Your task to perform on an android device: open a new tab in the chrome app Image 0: 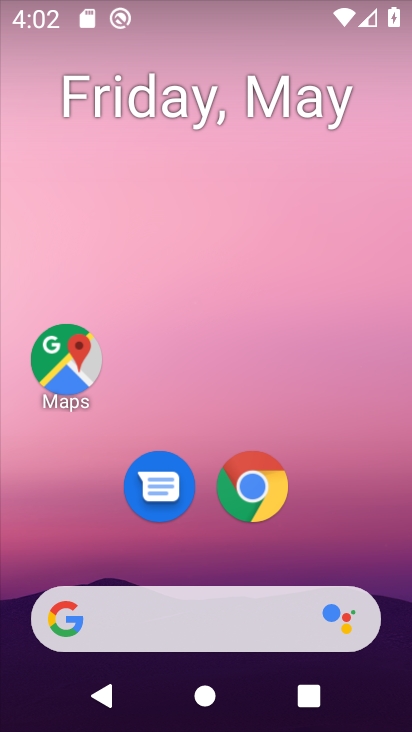
Step 0: drag from (325, 414) to (239, 23)
Your task to perform on an android device: open a new tab in the chrome app Image 1: 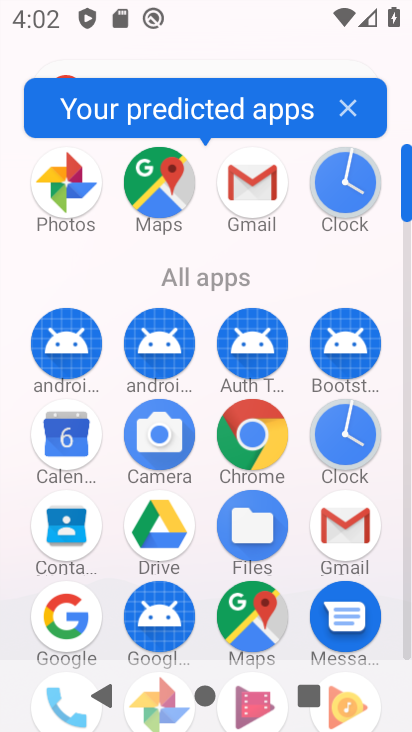
Step 1: drag from (17, 616) to (0, 274)
Your task to perform on an android device: open a new tab in the chrome app Image 2: 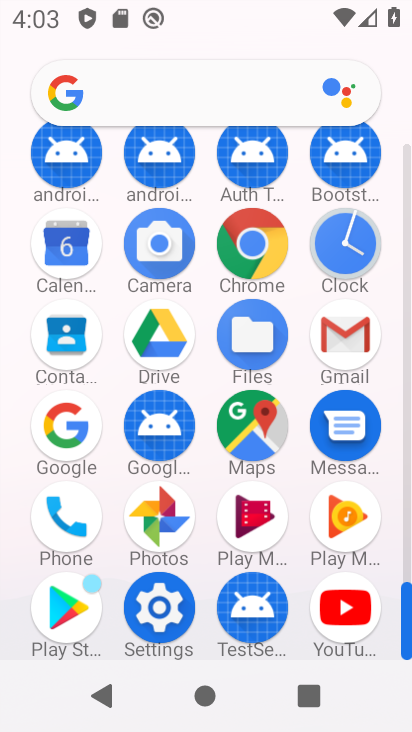
Step 2: click (248, 237)
Your task to perform on an android device: open a new tab in the chrome app Image 3: 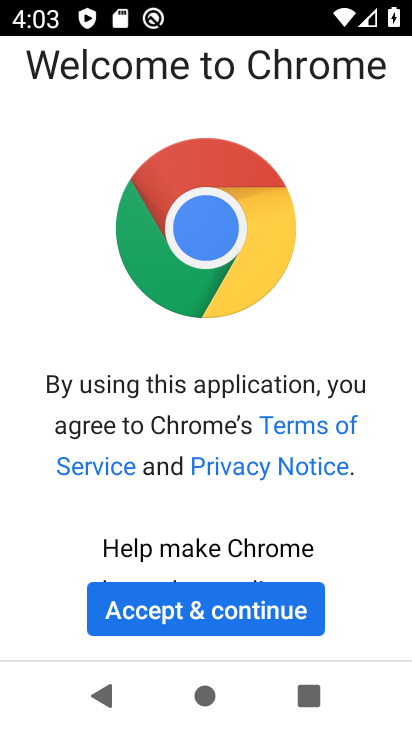
Step 3: click (213, 605)
Your task to perform on an android device: open a new tab in the chrome app Image 4: 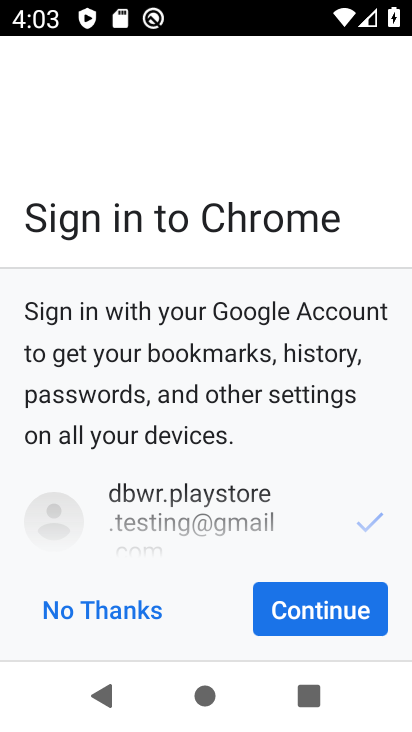
Step 4: click (281, 619)
Your task to perform on an android device: open a new tab in the chrome app Image 5: 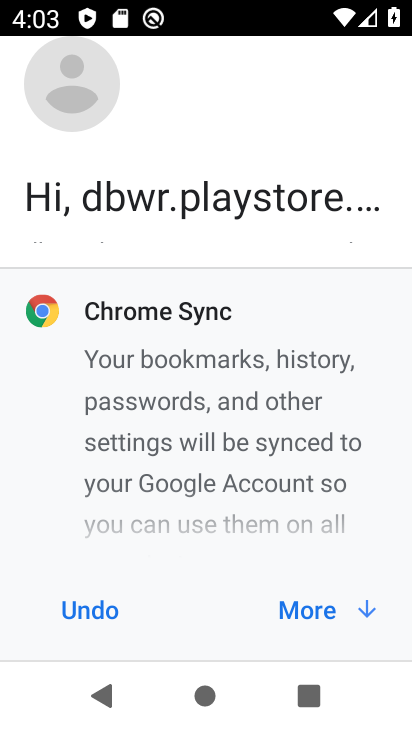
Step 5: click (286, 605)
Your task to perform on an android device: open a new tab in the chrome app Image 6: 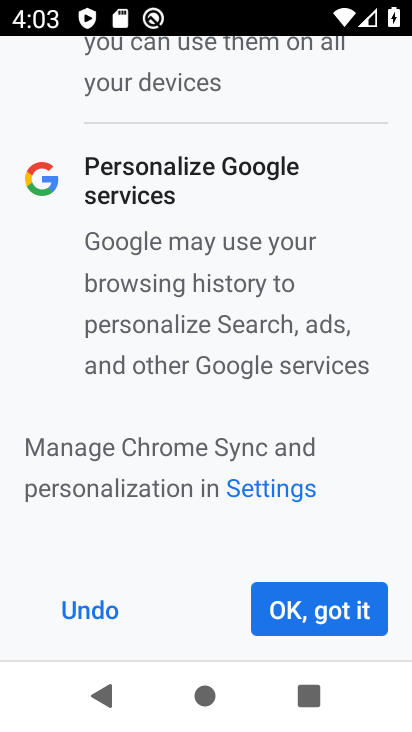
Step 6: click (286, 605)
Your task to perform on an android device: open a new tab in the chrome app Image 7: 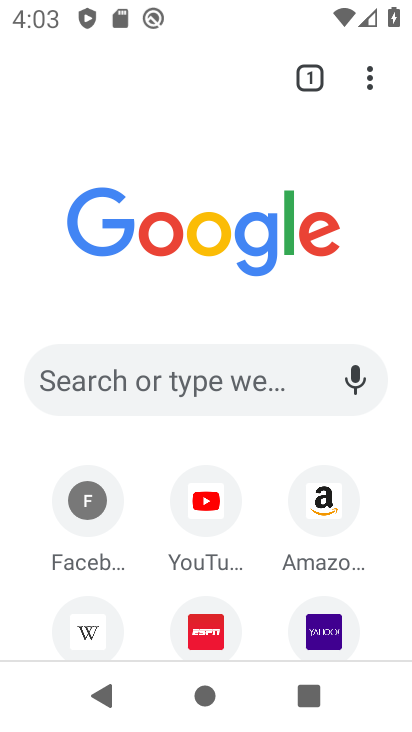
Step 7: task complete